Your task to perform on an android device: toggle wifi Image 0: 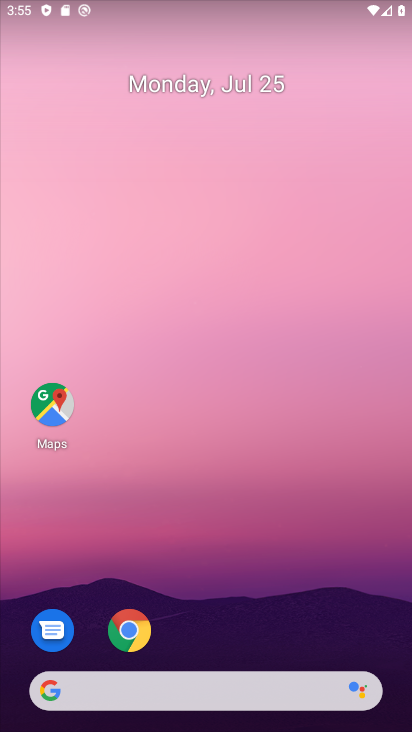
Step 0: drag from (240, 643) to (236, 134)
Your task to perform on an android device: toggle wifi Image 1: 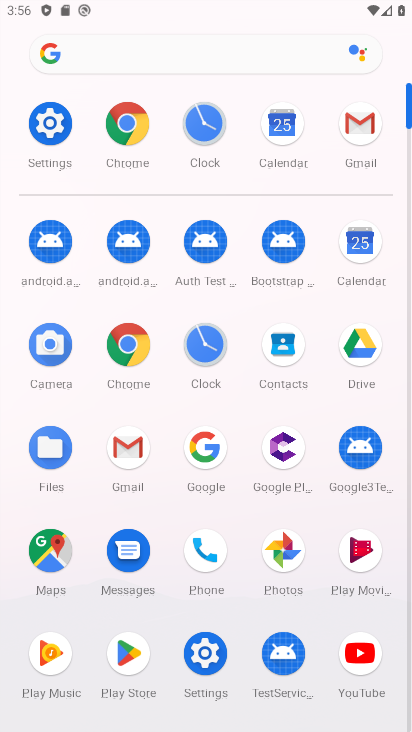
Step 1: click (49, 131)
Your task to perform on an android device: toggle wifi Image 2: 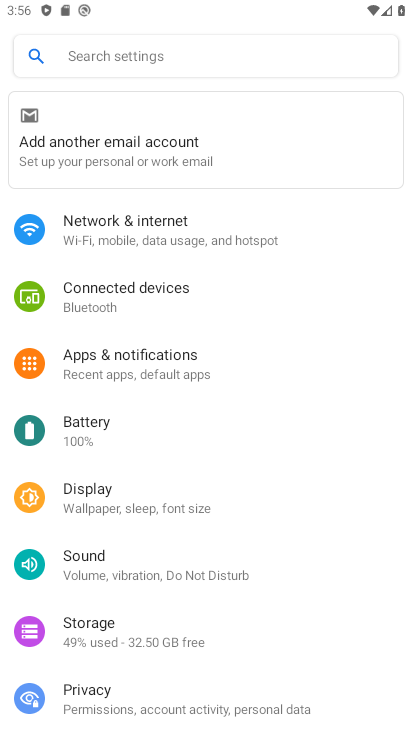
Step 2: click (157, 237)
Your task to perform on an android device: toggle wifi Image 3: 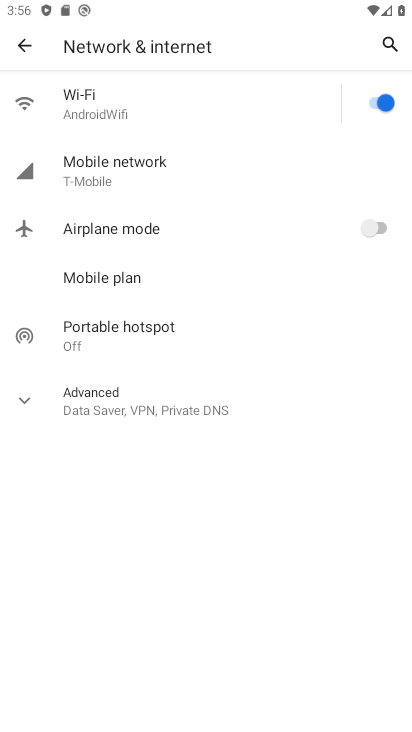
Step 3: click (383, 100)
Your task to perform on an android device: toggle wifi Image 4: 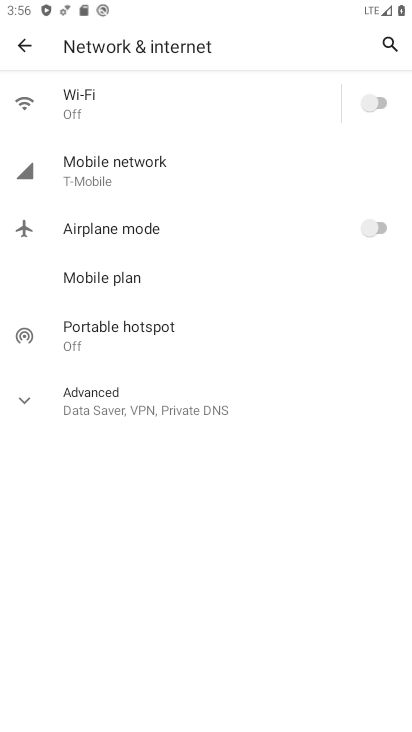
Step 4: task complete